Your task to perform on an android device: Open the phone app and click the voicemail tab. Image 0: 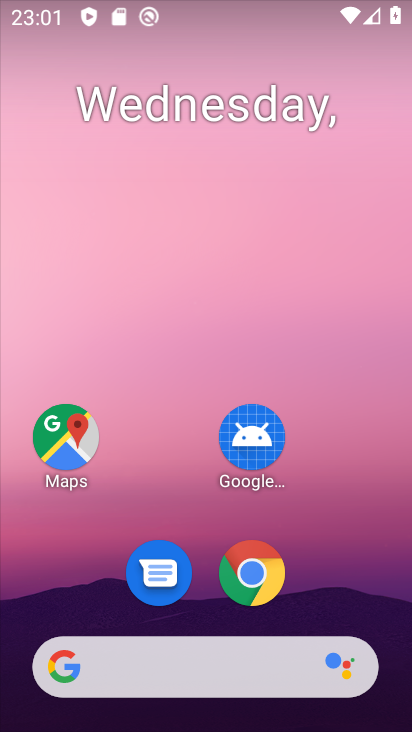
Step 0: drag from (172, 480) to (308, 4)
Your task to perform on an android device: Open the phone app and click the voicemail tab. Image 1: 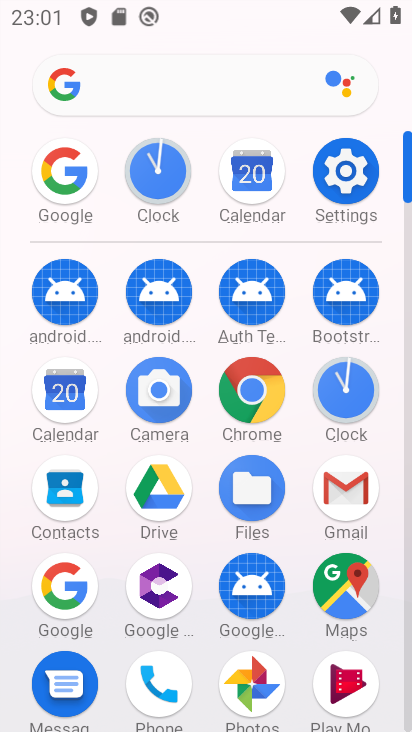
Step 1: click (157, 680)
Your task to perform on an android device: Open the phone app and click the voicemail tab. Image 2: 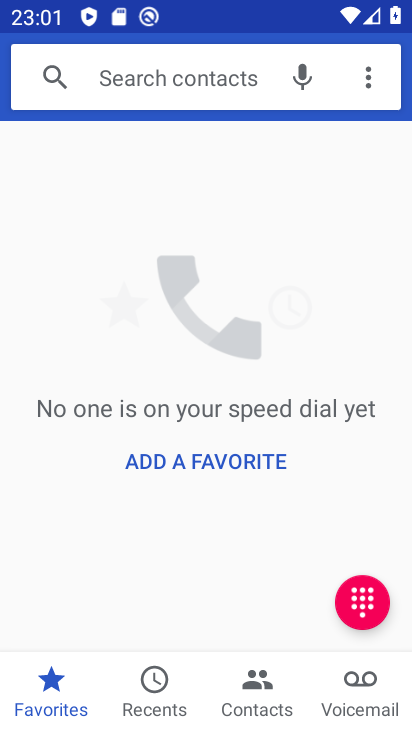
Step 2: click (365, 690)
Your task to perform on an android device: Open the phone app and click the voicemail tab. Image 3: 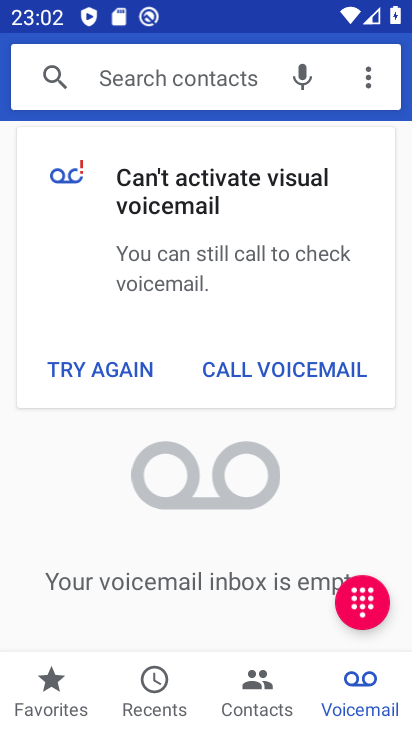
Step 3: task complete